Your task to perform on an android device: open a new tab in the chrome app Image 0: 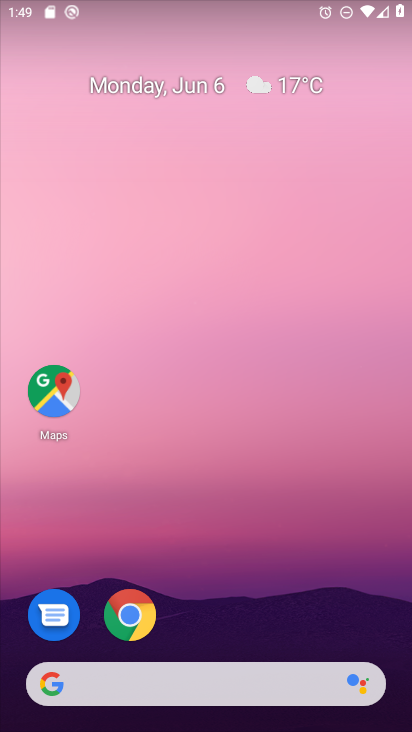
Step 0: click (133, 625)
Your task to perform on an android device: open a new tab in the chrome app Image 1: 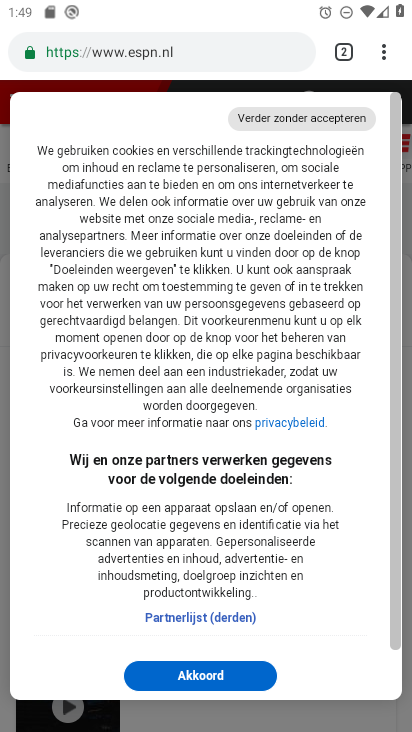
Step 1: click (377, 57)
Your task to perform on an android device: open a new tab in the chrome app Image 2: 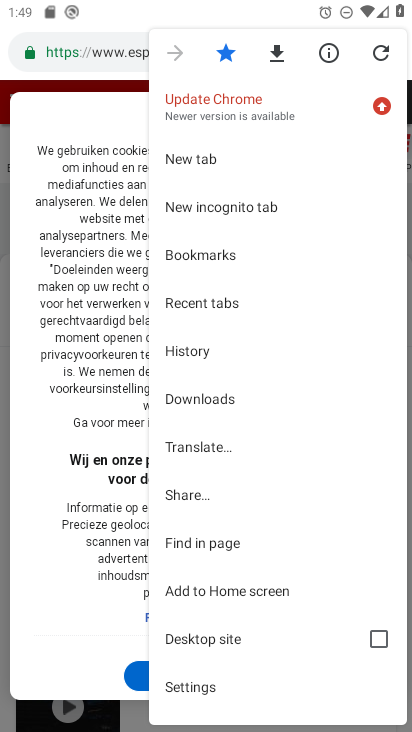
Step 2: click (185, 168)
Your task to perform on an android device: open a new tab in the chrome app Image 3: 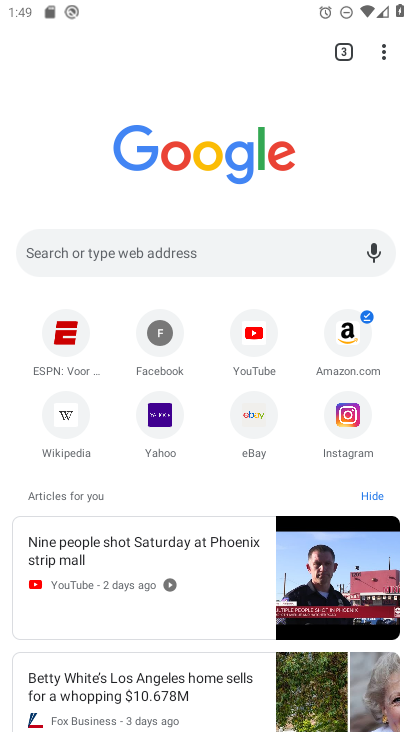
Step 3: task complete